Your task to perform on an android device: Search for Italian restaurants on Maps Image 0: 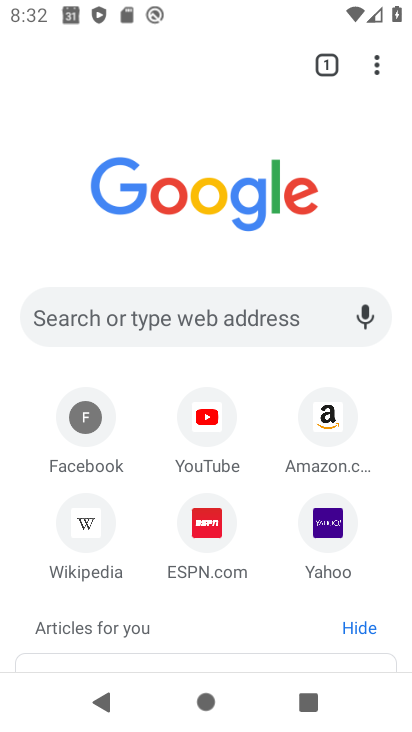
Step 0: press home button
Your task to perform on an android device: Search for Italian restaurants on Maps Image 1: 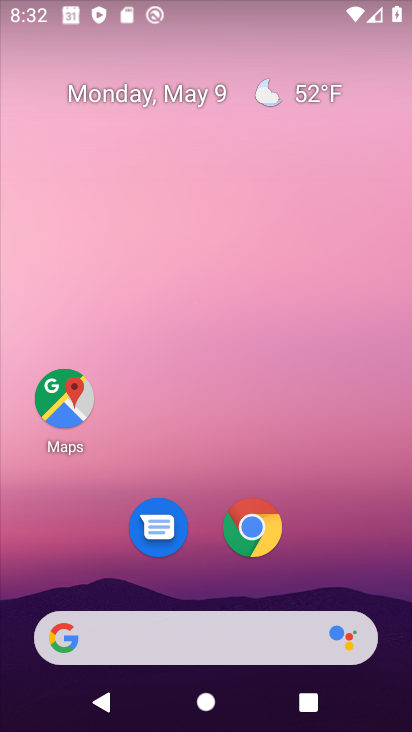
Step 1: click (68, 404)
Your task to perform on an android device: Search for Italian restaurants on Maps Image 2: 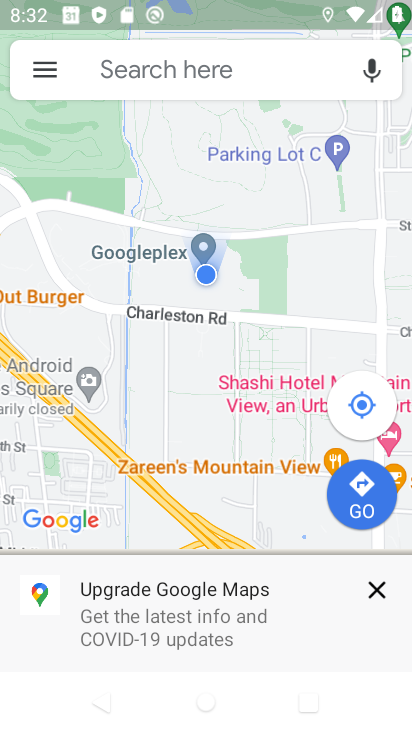
Step 2: click (204, 69)
Your task to perform on an android device: Search for Italian restaurants on Maps Image 3: 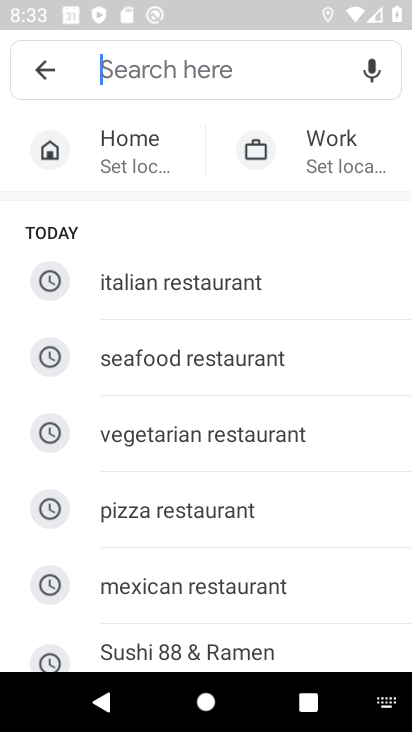
Step 3: click (207, 288)
Your task to perform on an android device: Search for Italian restaurants on Maps Image 4: 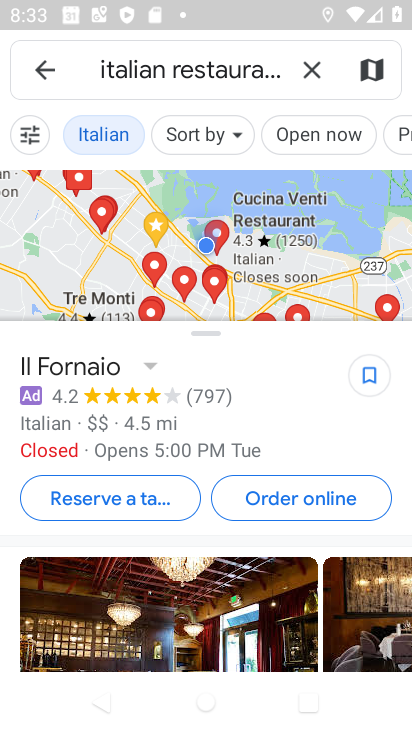
Step 4: task complete